Your task to perform on an android device: set the timer Image 0: 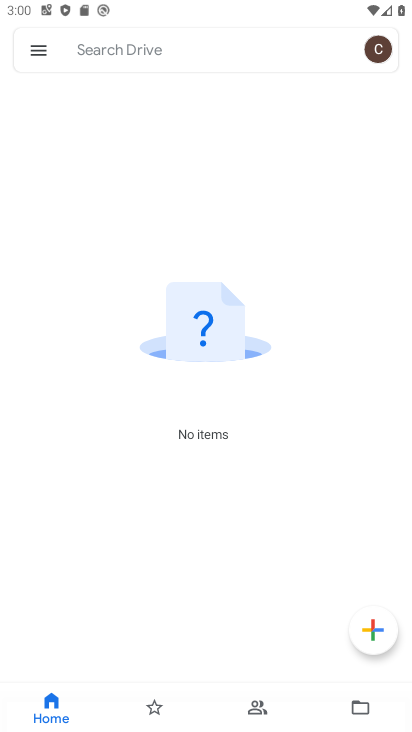
Step 0: press home button
Your task to perform on an android device: set the timer Image 1: 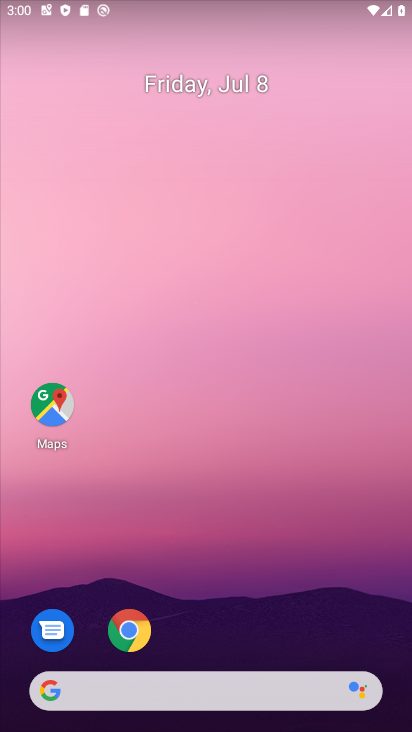
Step 1: drag from (236, 634) to (217, 9)
Your task to perform on an android device: set the timer Image 2: 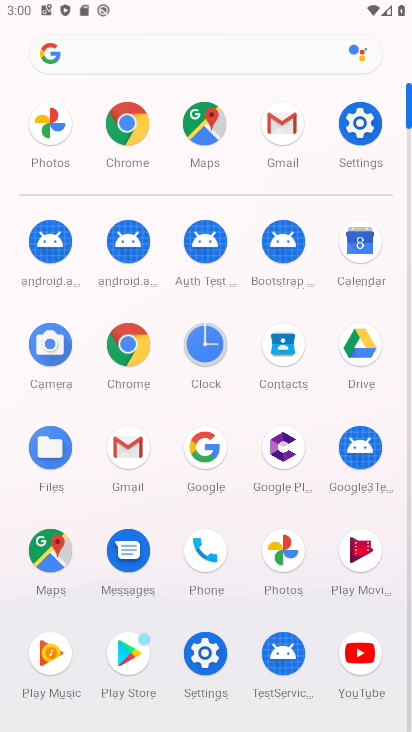
Step 2: click (344, 122)
Your task to perform on an android device: set the timer Image 3: 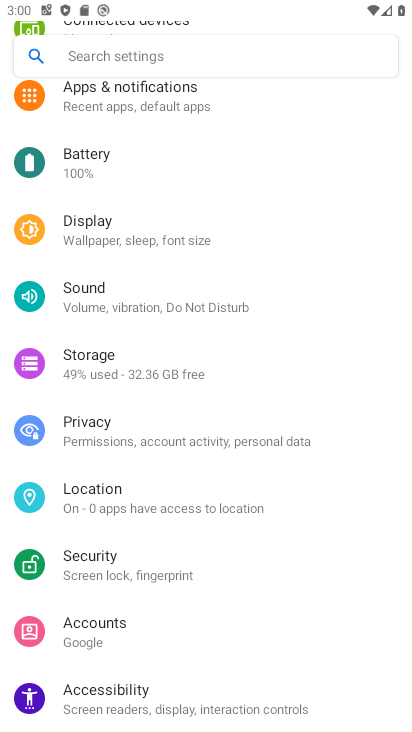
Step 3: drag from (247, 302) to (197, 545)
Your task to perform on an android device: set the timer Image 4: 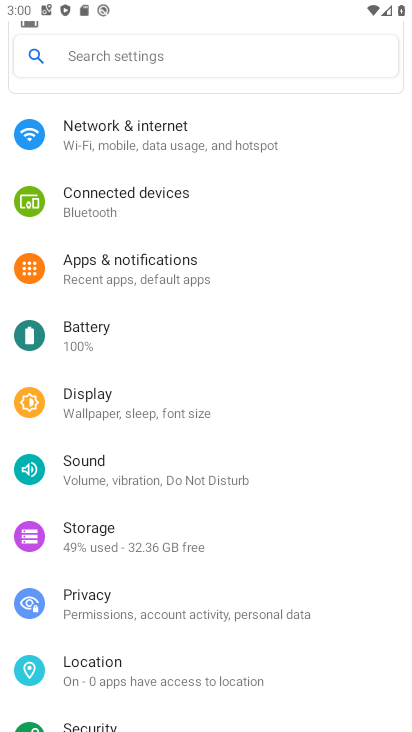
Step 4: press home button
Your task to perform on an android device: set the timer Image 5: 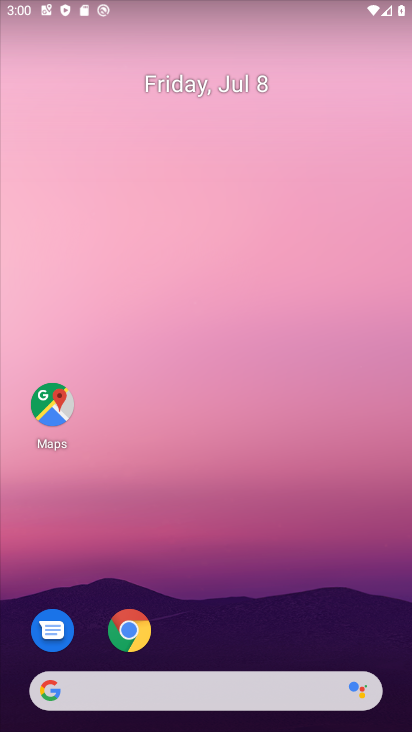
Step 5: drag from (287, 610) to (262, 230)
Your task to perform on an android device: set the timer Image 6: 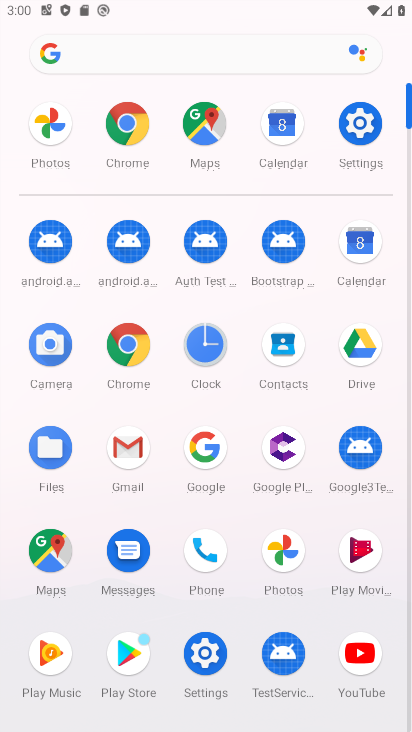
Step 6: click (205, 328)
Your task to perform on an android device: set the timer Image 7: 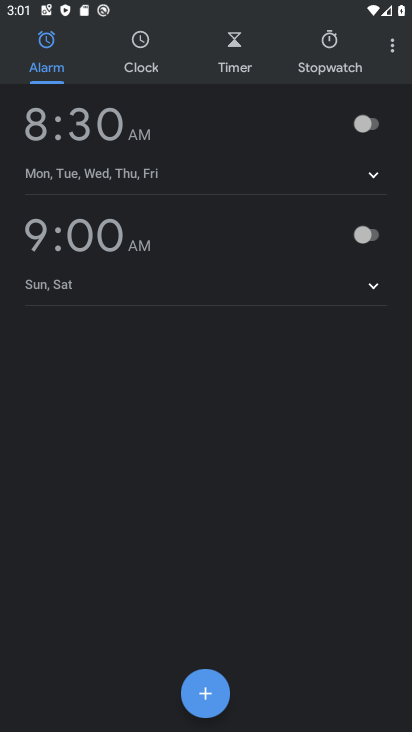
Step 7: click (240, 46)
Your task to perform on an android device: set the timer Image 8: 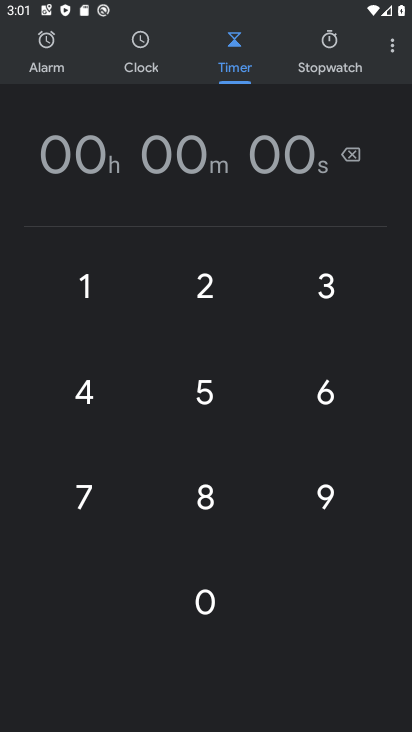
Step 8: task complete